Your task to perform on an android device: install app "Fetch Rewards" Image 0: 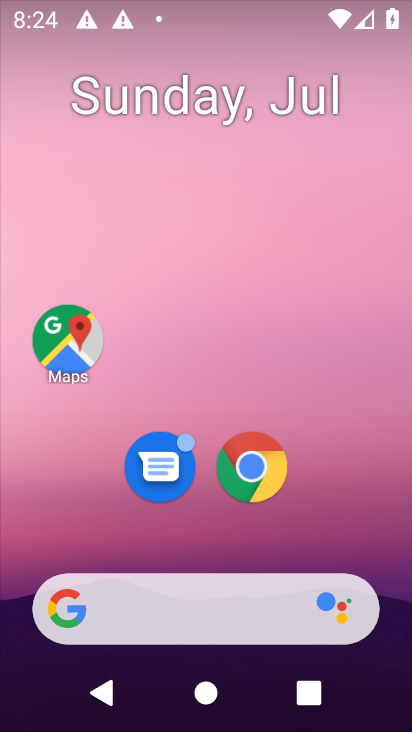
Step 0: drag from (238, 367) to (257, 66)
Your task to perform on an android device: install app "Fetch Rewards" Image 1: 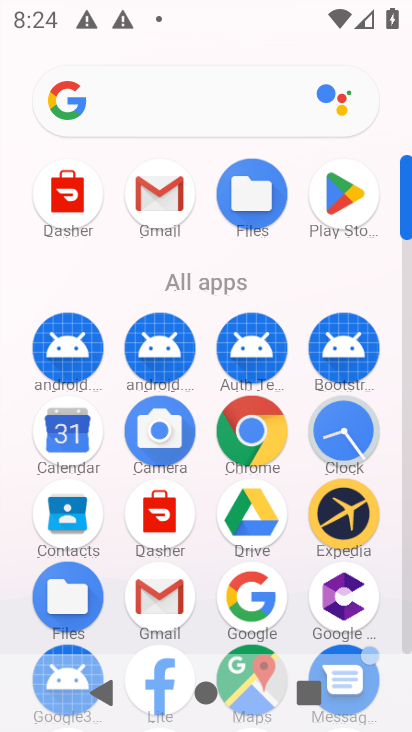
Step 1: drag from (201, 620) to (213, 257)
Your task to perform on an android device: install app "Fetch Rewards" Image 2: 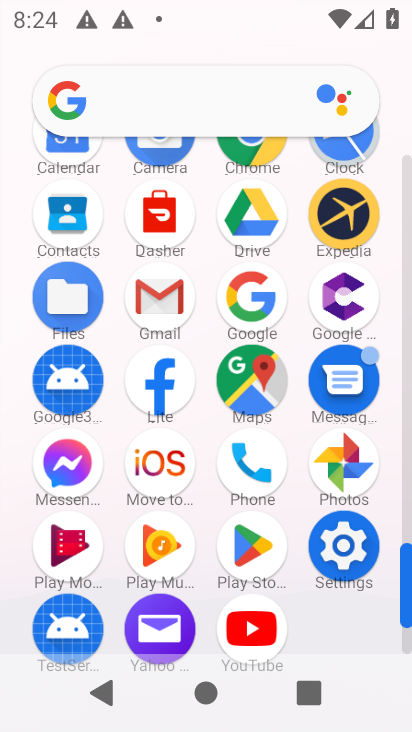
Step 2: click (256, 533)
Your task to perform on an android device: install app "Fetch Rewards" Image 3: 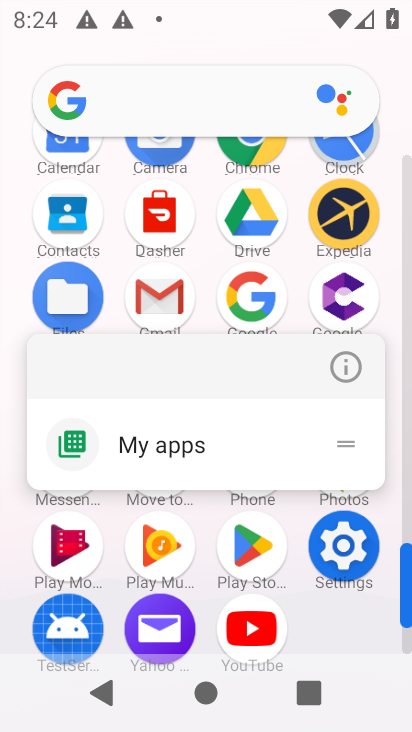
Step 3: click (349, 367)
Your task to perform on an android device: install app "Fetch Rewards" Image 4: 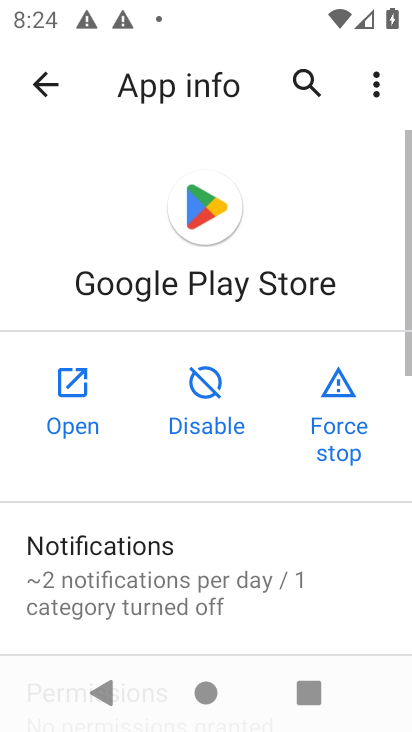
Step 4: click (71, 414)
Your task to perform on an android device: install app "Fetch Rewards" Image 5: 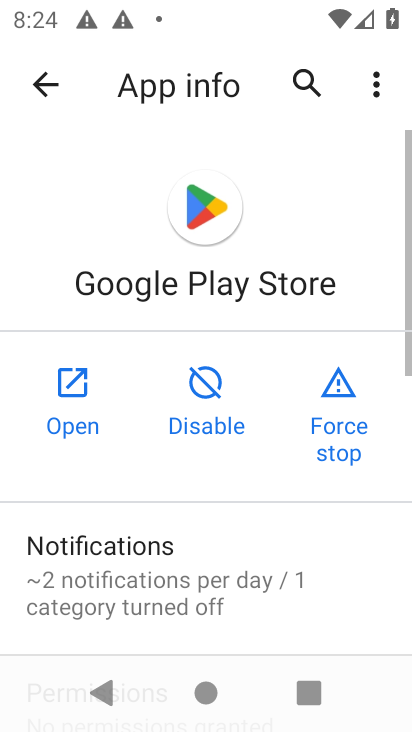
Step 5: click (71, 414)
Your task to perform on an android device: install app "Fetch Rewards" Image 6: 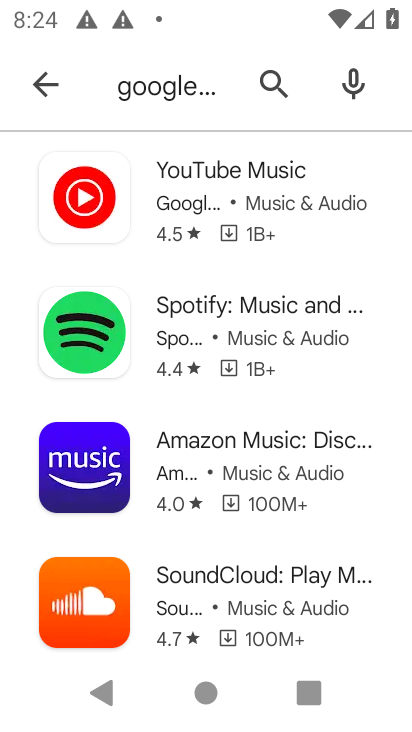
Step 6: click (271, 82)
Your task to perform on an android device: install app "Fetch Rewards" Image 7: 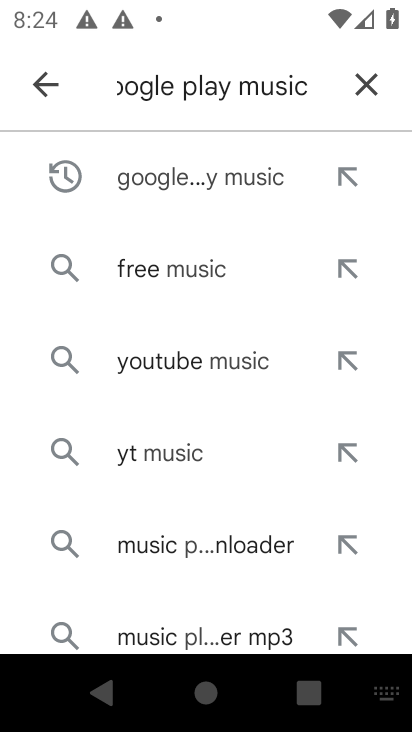
Step 7: click (351, 94)
Your task to perform on an android device: install app "Fetch Rewards" Image 8: 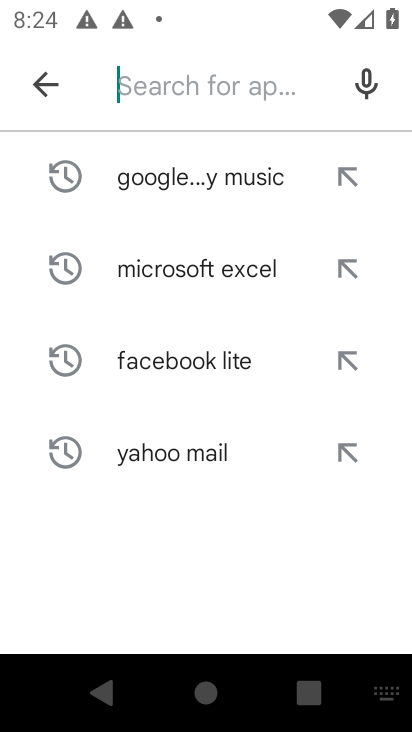
Step 8: click (217, 90)
Your task to perform on an android device: install app "Fetch Rewards" Image 9: 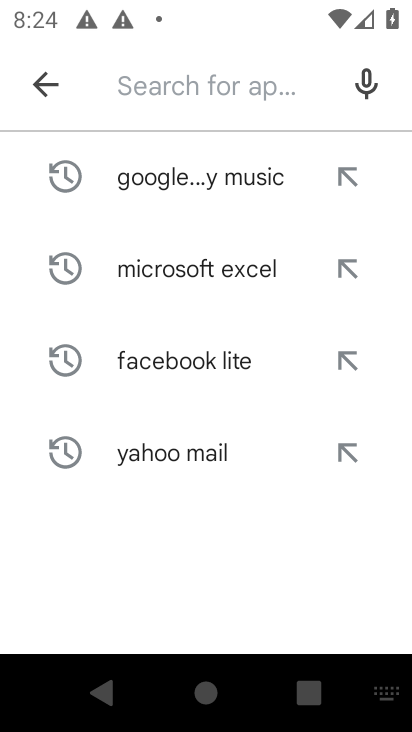
Step 9: type "Fetch Rewards"
Your task to perform on an android device: install app "Fetch Rewards" Image 10: 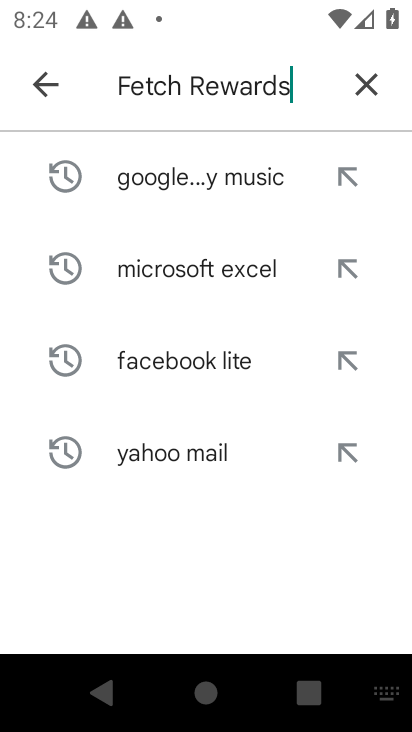
Step 10: type ""
Your task to perform on an android device: install app "Fetch Rewards" Image 11: 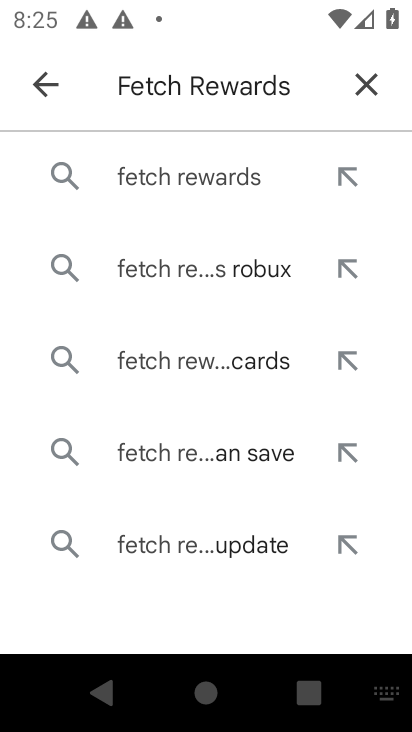
Step 11: click (177, 179)
Your task to perform on an android device: install app "Fetch Rewards" Image 12: 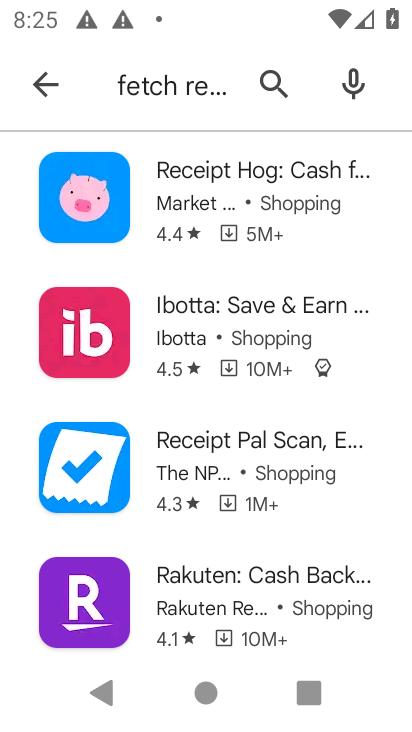
Step 12: task complete